Your task to perform on an android device: turn pop-ups on in chrome Image 0: 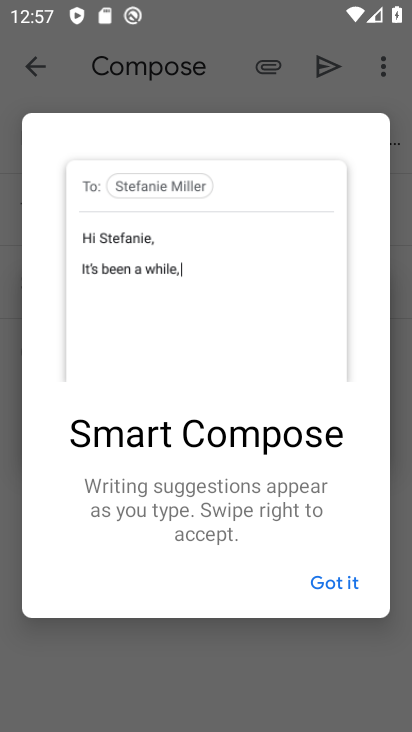
Step 0: press home button
Your task to perform on an android device: turn pop-ups on in chrome Image 1: 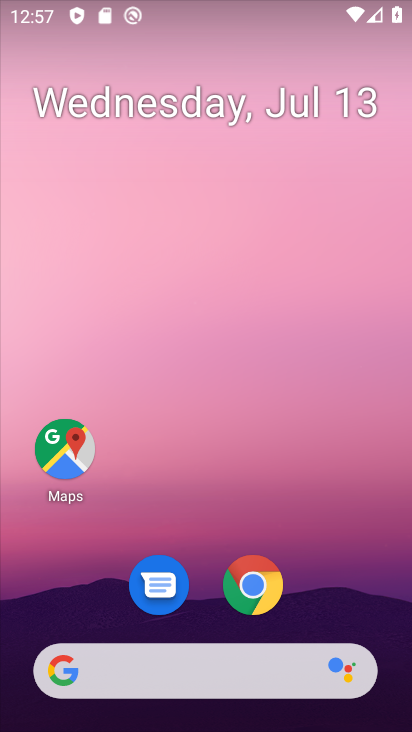
Step 1: click (253, 589)
Your task to perform on an android device: turn pop-ups on in chrome Image 2: 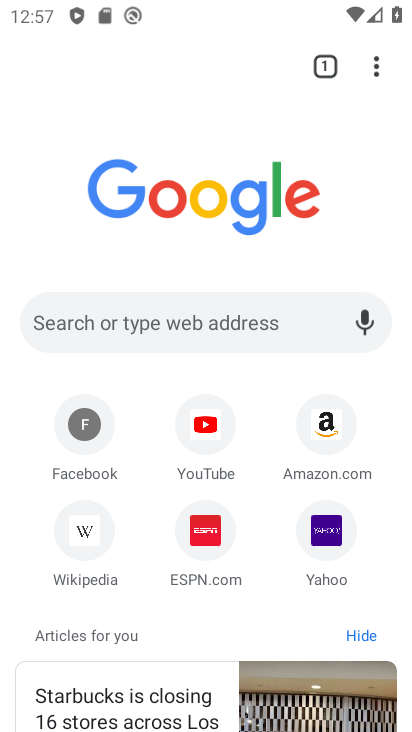
Step 2: click (376, 67)
Your task to perform on an android device: turn pop-ups on in chrome Image 3: 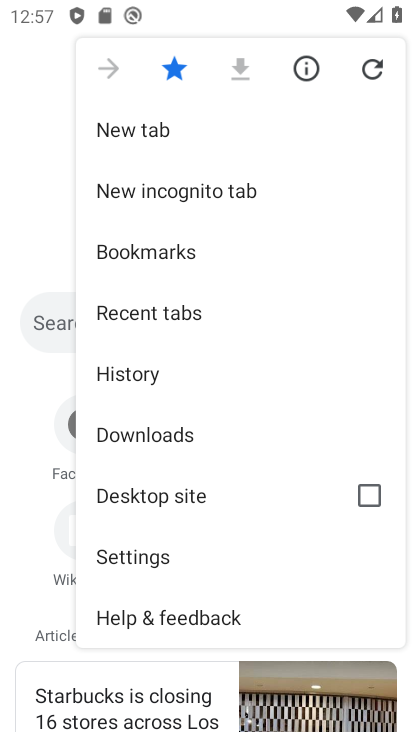
Step 3: drag from (222, 552) to (256, 312)
Your task to perform on an android device: turn pop-ups on in chrome Image 4: 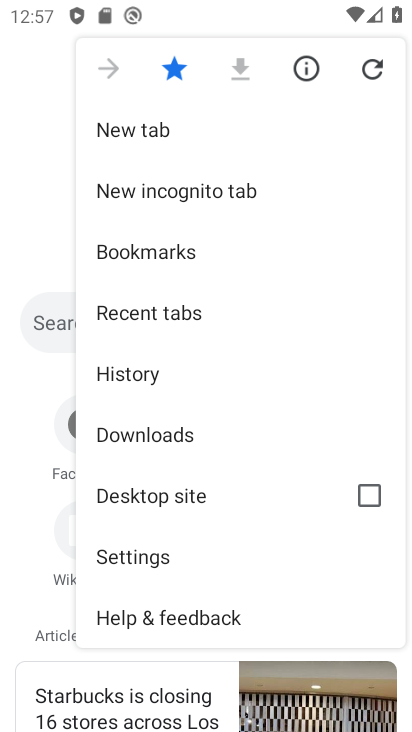
Step 4: click (152, 553)
Your task to perform on an android device: turn pop-ups on in chrome Image 5: 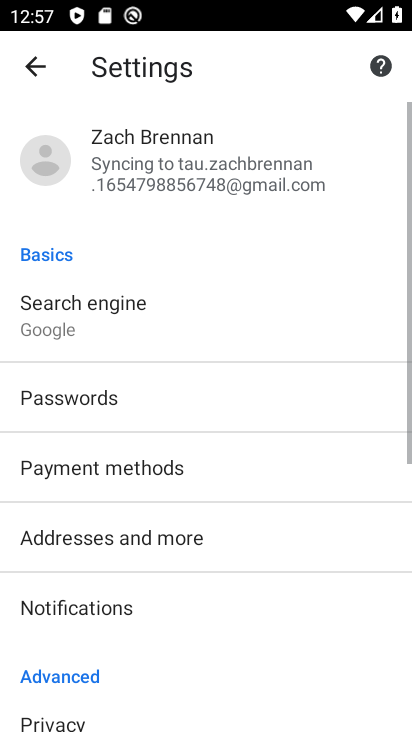
Step 5: drag from (251, 508) to (310, 133)
Your task to perform on an android device: turn pop-ups on in chrome Image 6: 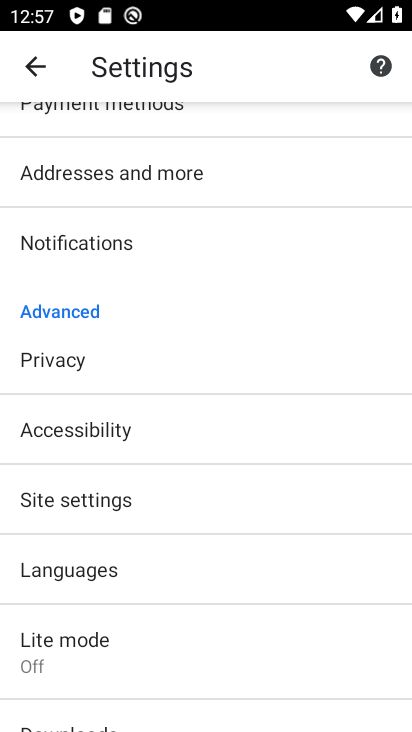
Step 6: click (116, 501)
Your task to perform on an android device: turn pop-ups on in chrome Image 7: 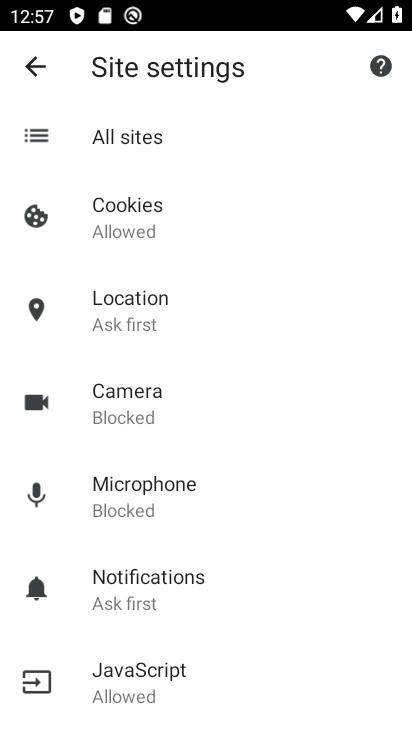
Step 7: drag from (249, 534) to (284, 284)
Your task to perform on an android device: turn pop-ups on in chrome Image 8: 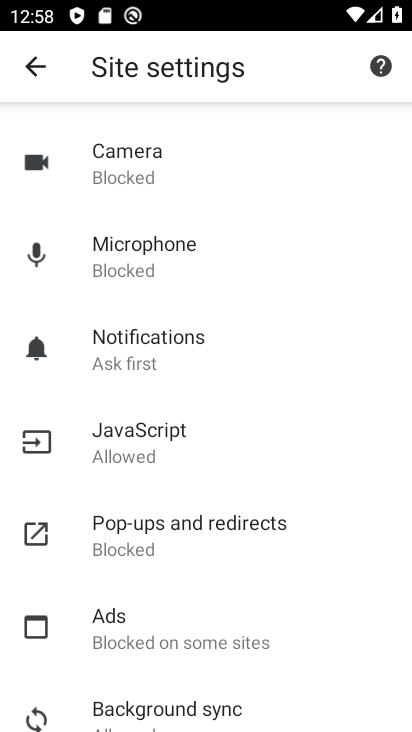
Step 8: click (192, 520)
Your task to perform on an android device: turn pop-ups on in chrome Image 9: 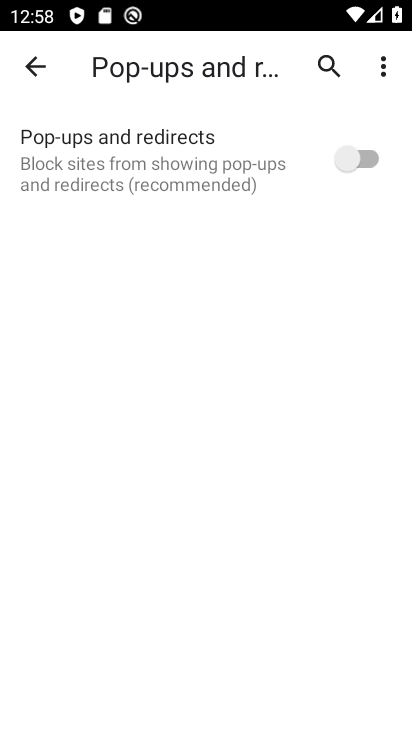
Step 9: click (358, 153)
Your task to perform on an android device: turn pop-ups on in chrome Image 10: 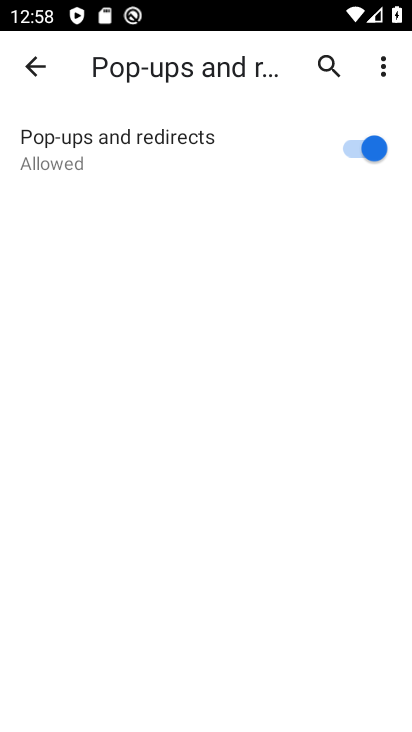
Step 10: task complete